Your task to perform on an android device: Open the calendar app, open the side menu, and click the "Day" option Image 0: 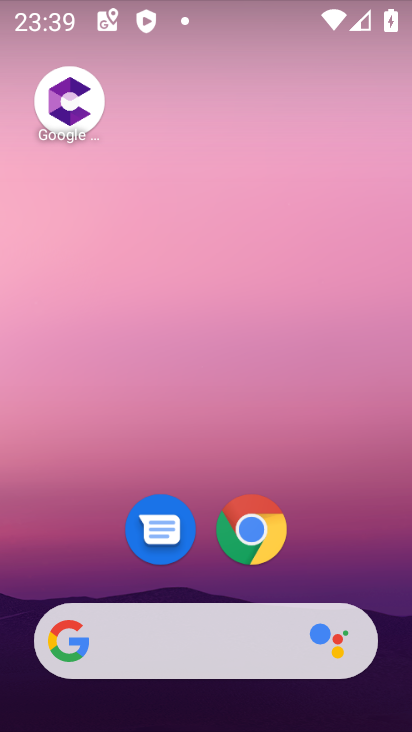
Step 0: drag from (93, 607) to (183, 121)
Your task to perform on an android device: Open the calendar app, open the side menu, and click the "Day" option Image 1: 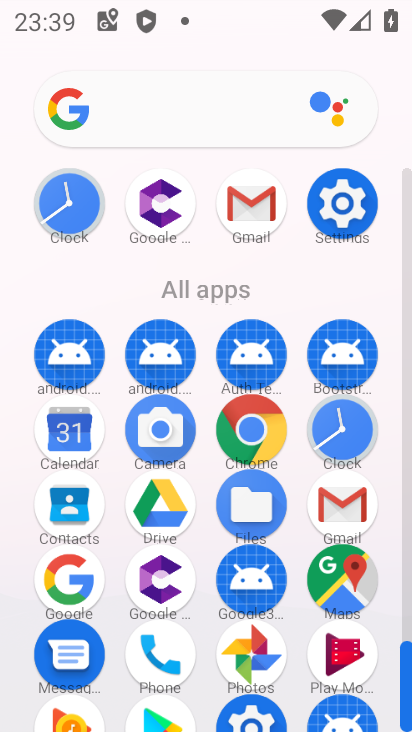
Step 1: click (76, 459)
Your task to perform on an android device: Open the calendar app, open the side menu, and click the "Day" option Image 2: 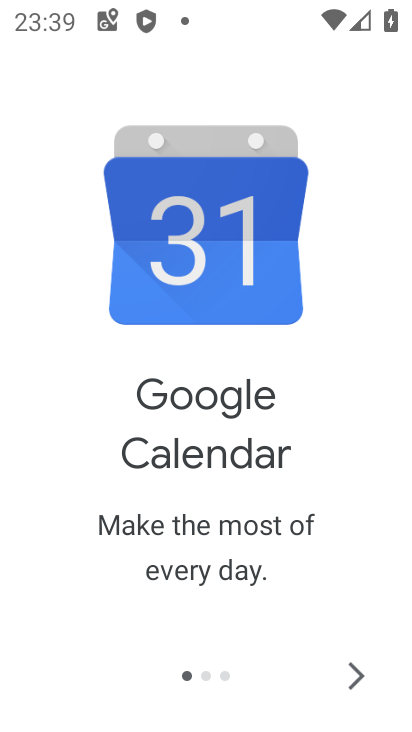
Step 2: click (364, 681)
Your task to perform on an android device: Open the calendar app, open the side menu, and click the "Day" option Image 3: 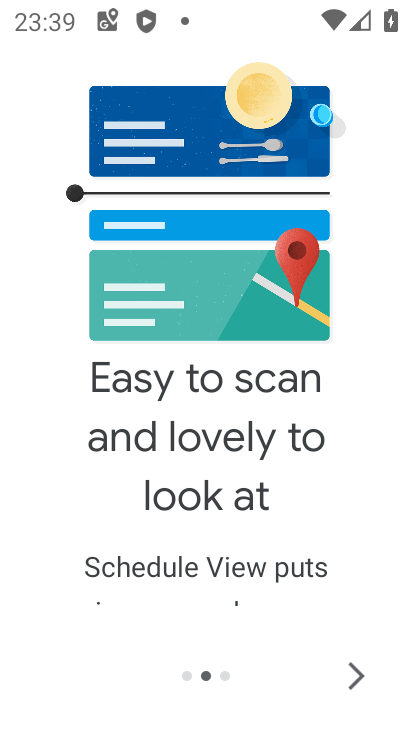
Step 3: click (364, 681)
Your task to perform on an android device: Open the calendar app, open the side menu, and click the "Day" option Image 4: 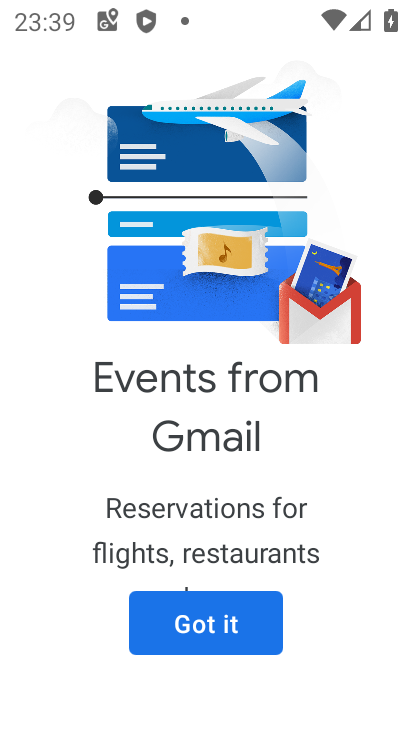
Step 4: click (216, 636)
Your task to perform on an android device: Open the calendar app, open the side menu, and click the "Day" option Image 5: 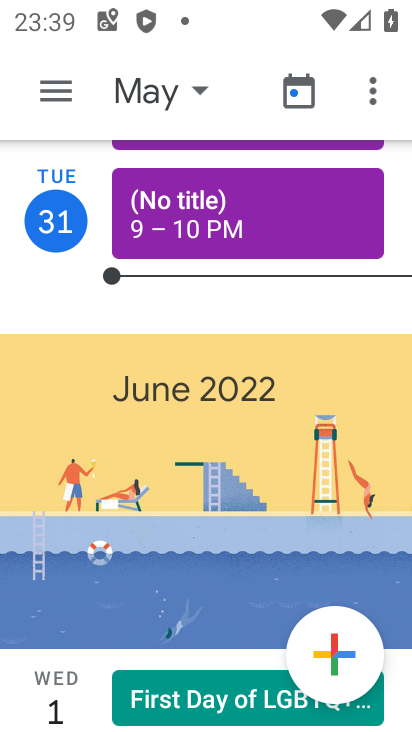
Step 5: click (72, 107)
Your task to perform on an android device: Open the calendar app, open the side menu, and click the "Day" option Image 6: 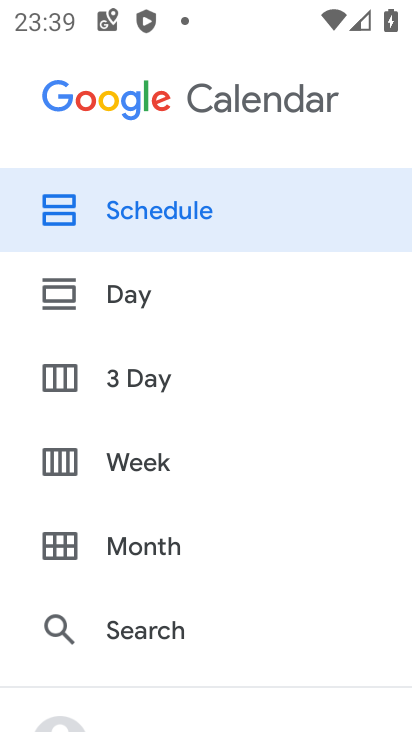
Step 6: click (189, 314)
Your task to perform on an android device: Open the calendar app, open the side menu, and click the "Day" option Image 7: 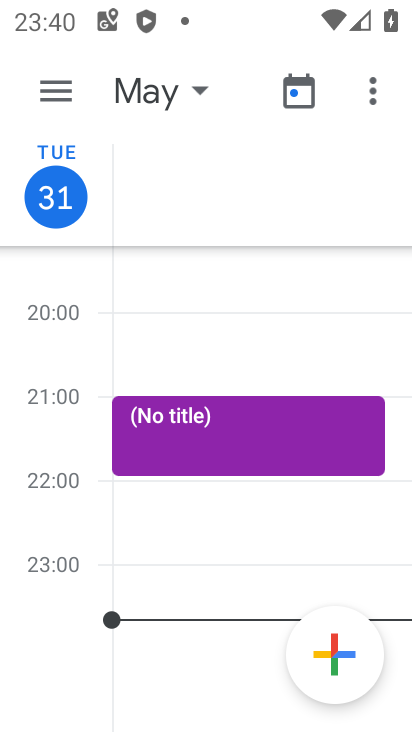
Step 7: task complete